Your task to perform on an android device: turn vacation reply on in the gmail app Image 0: 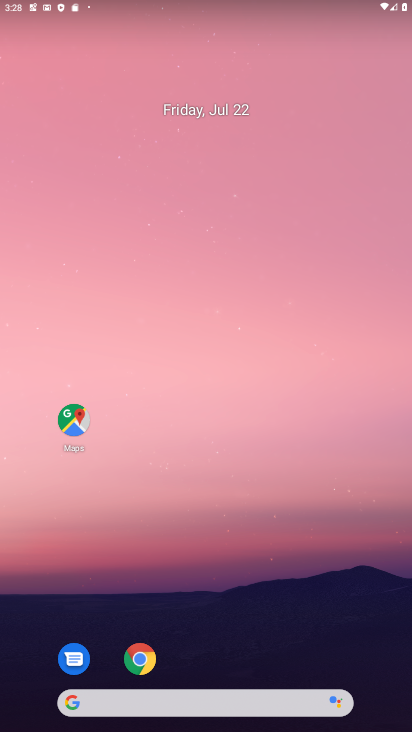
Step 0: drag from (199, 601) to (183, 226)
Your task to perform on an android device: turn vacation reply on in the gmail app Image 1: 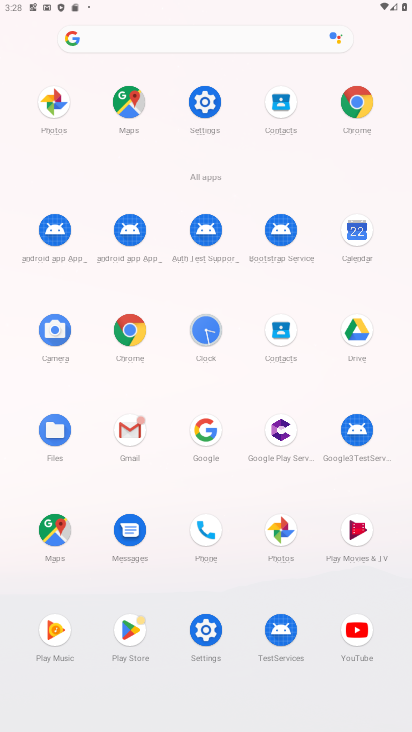
Step 1: click (125, 441)
Your task to perform on an android device: turn vacation reply on in the gmail app Image 2: 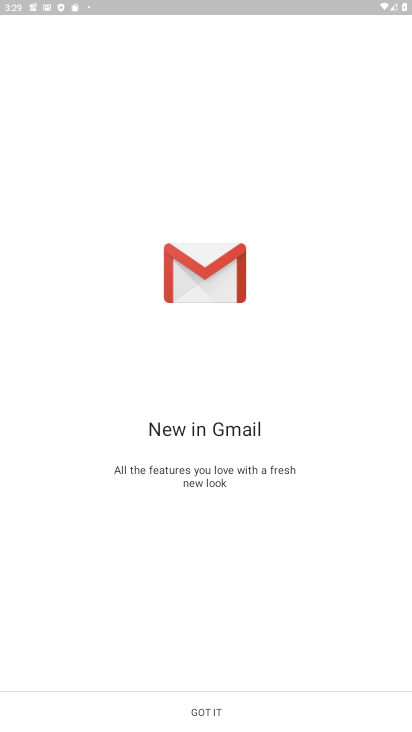
Step 2: click (179, 698)
Your task to perform on an android device: turn vacation reply on in the gmail app Image 3: 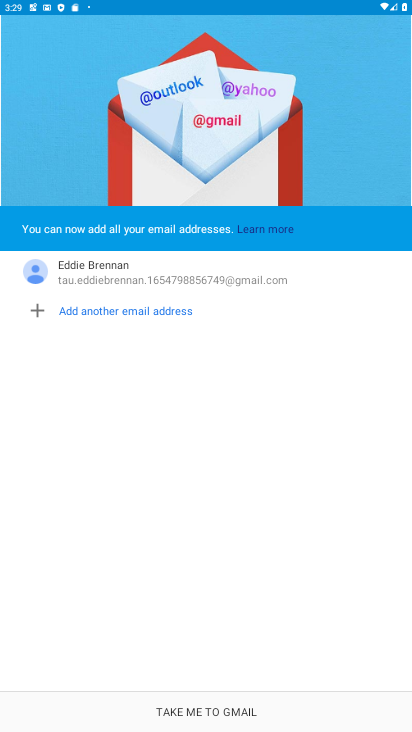
Step 3: click (179, 698)
Your task to perform on an android device: turn vacation reply on in the gmail app Image 4: 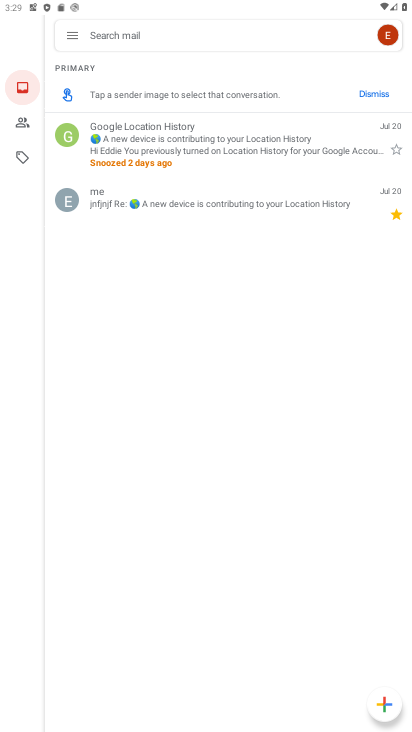
Step 4: click (79, 30)
Your task to perform on an android device: turn vacation reply on in the gmail app Image 5: 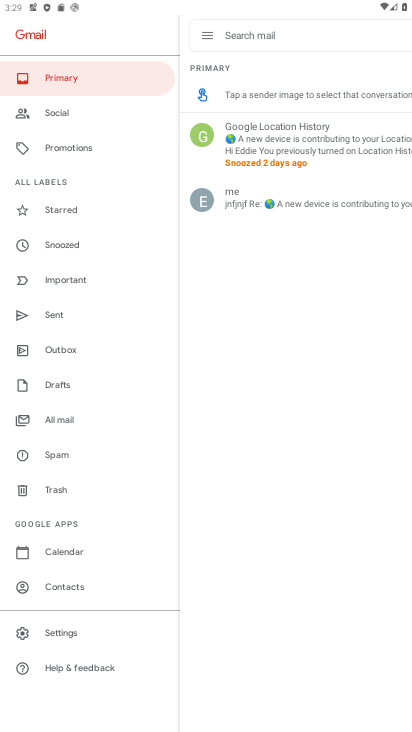
Step 5: click (63, 634)
Your task to perform on an android device: turn vacation reply on in the gmail app Image 6: 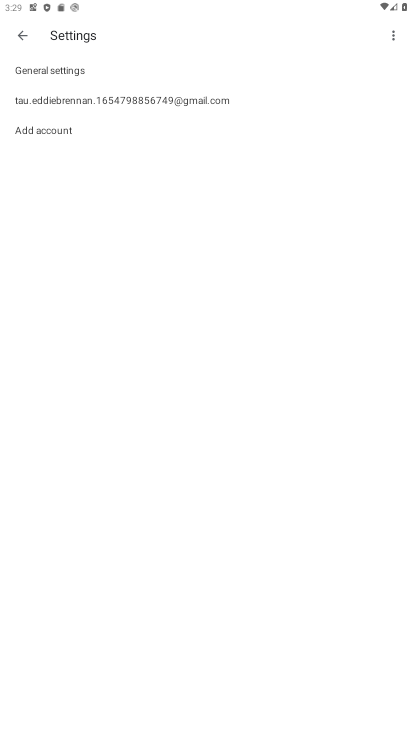
Step 6: click (254, 109)
Your task to perform on an android device: turn vacation reply on in the gmail app Image 7: 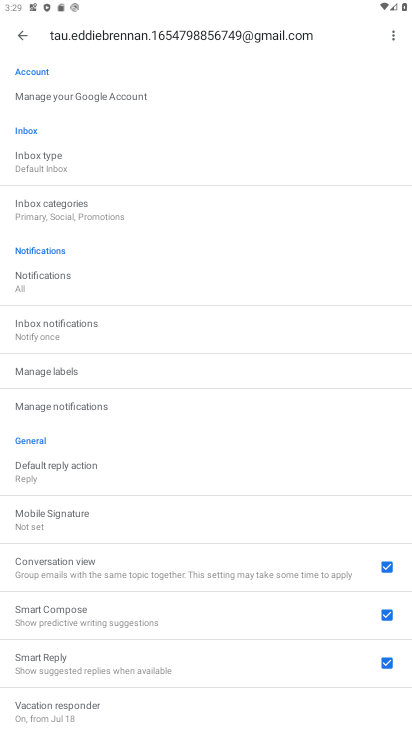
Step 7: click (166, 723)
Your task to perform on an android device: turn vacation reply on in the gmail app Image 8: 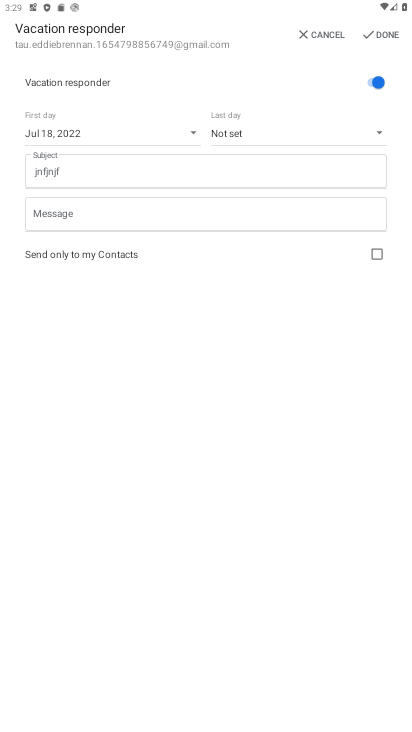
Step 8: click (385, 28)
Your task to perform on an android device: turn vacation reply on in the gmail app Image 9: 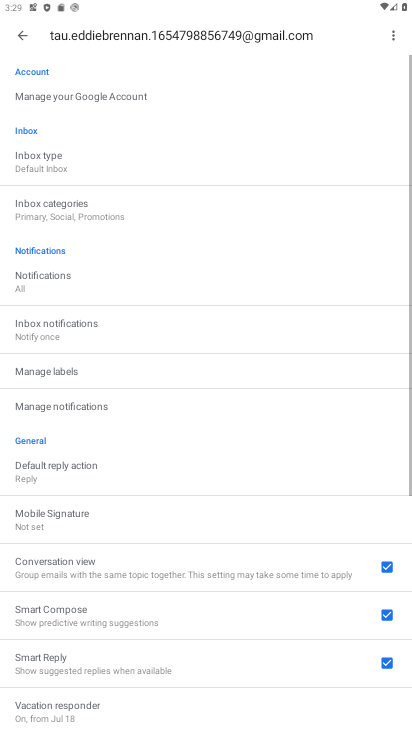
Step 9: task complete